Your task to perform on an android device: show emergency info Image 0: 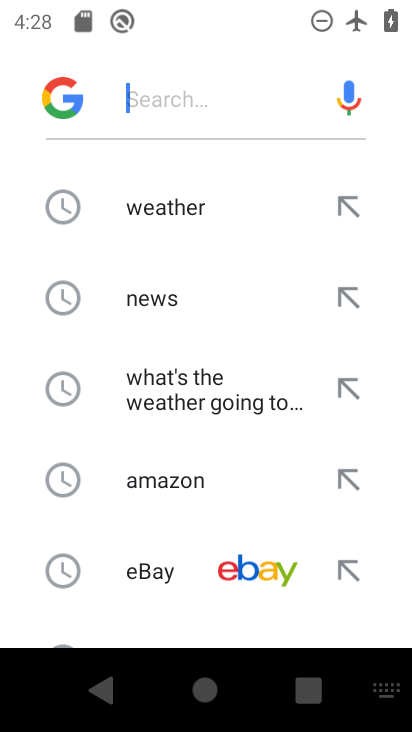
Step 0: press home button
Your task to perform on an android device: show emergency info Image 1: 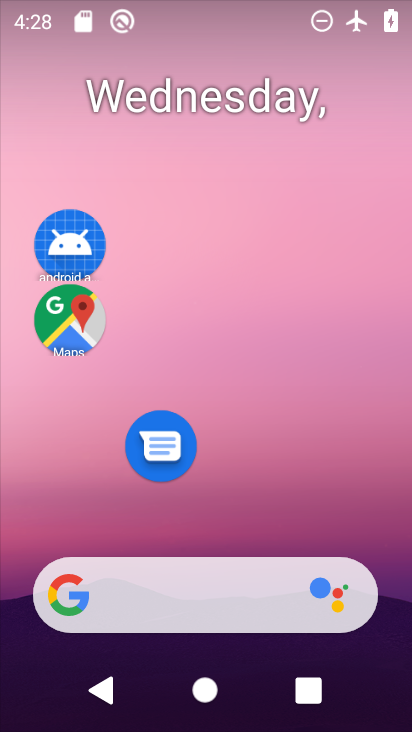
Step 1: drag from (295, 531) to (295, 150)
Your task to perform on an android device: show emergency info Image 2: 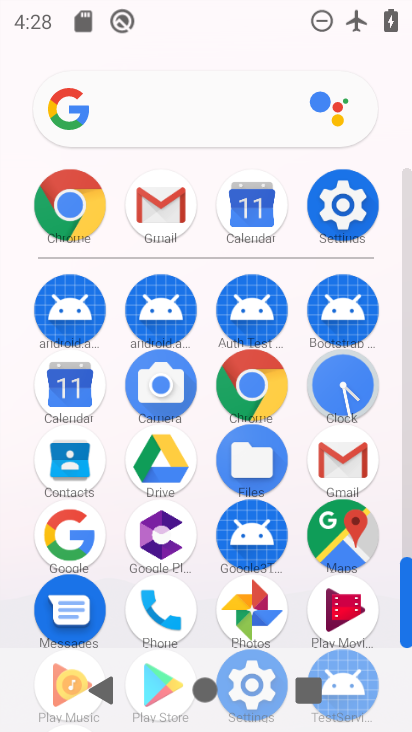
Step 2: click (344, 215)
Your task to perform on an android device: show emergency info Image 3: 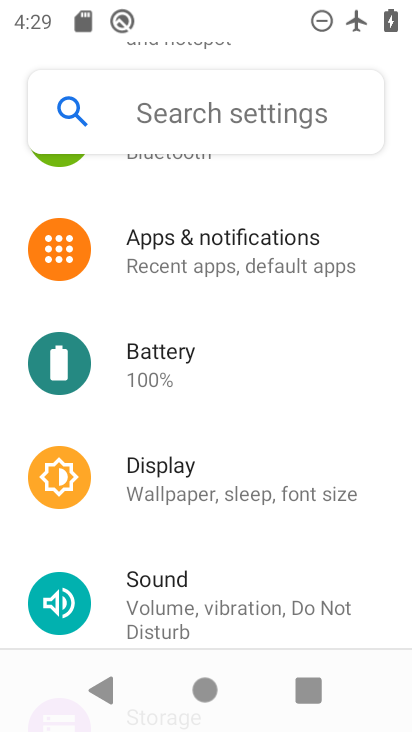
Step 3: drag from (246, 480) to (252, 214)
Your task to perform on an android device: show emergency info Image 4: 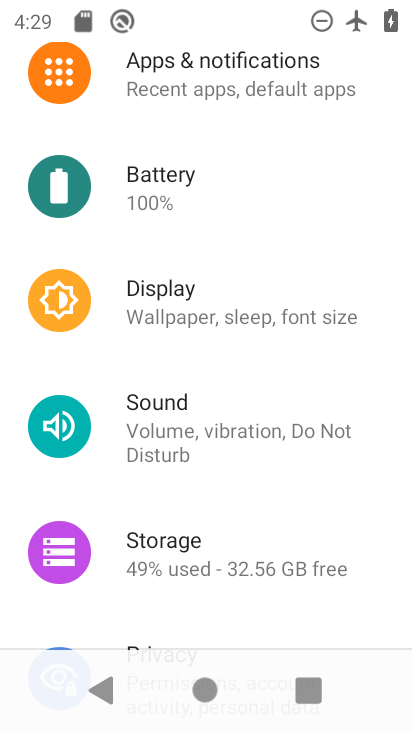
Step 4: drag from (243, 567) to (235, 285)
Your task to perform on an android device: show emergency info Image 5: 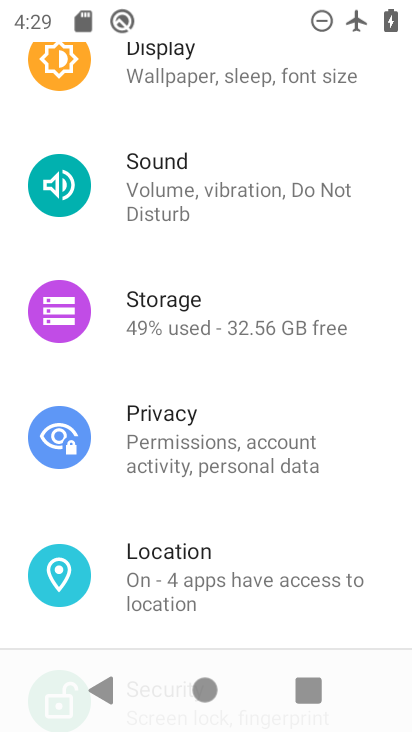
Step 5: drag from (225, 552) to (237, 277)
Your task to perform on an android device: show emergency info Image 6: 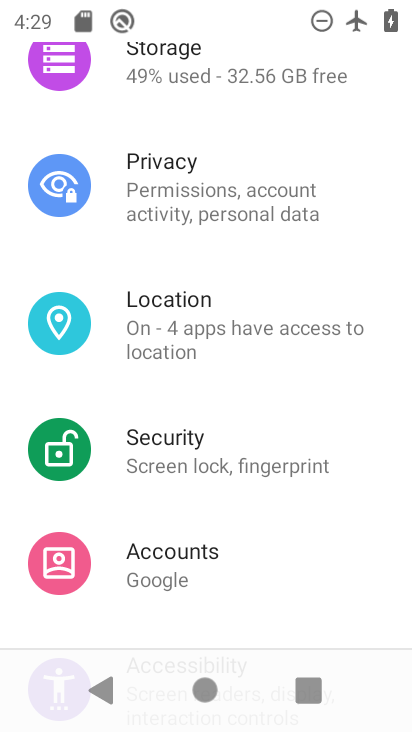
Step 6: drag from (237, 548) to (235, 251)
Your task to perform on an android device: show emergency info Image 7: 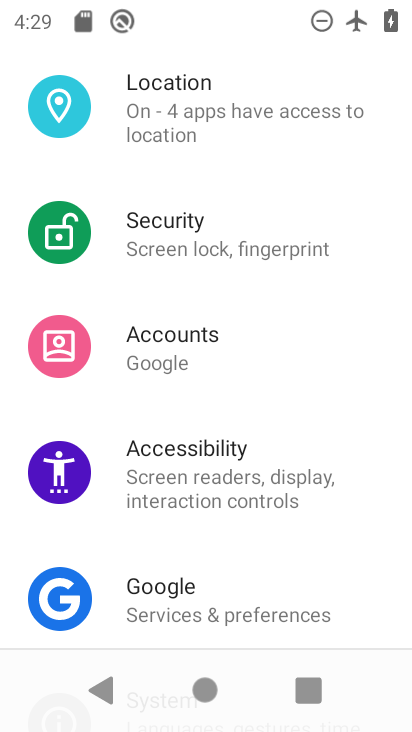
Step 7: drag from (235, 465) to (272, 114)
Your task to perform on an android device: show emergency info Image 8: 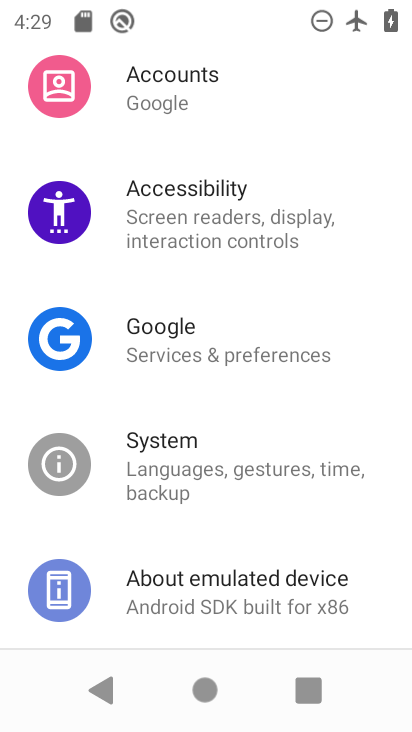
Step 8: click (204, 578)
Your task to perform on an android device: show emergency info Image 9: 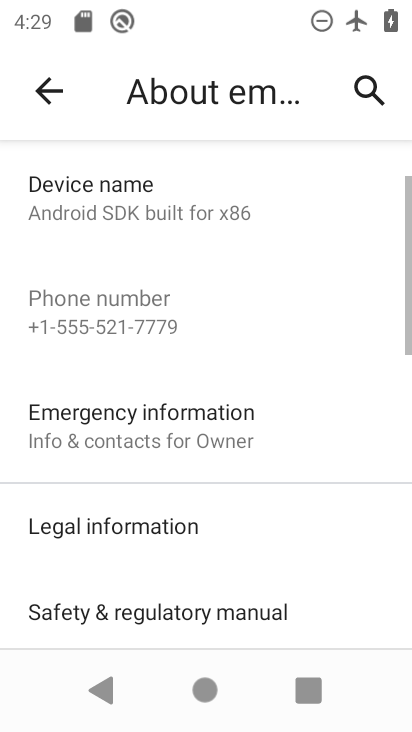
Step 9: click (229, 393)
Your task to perform on an android device: show emergency info Image 10: 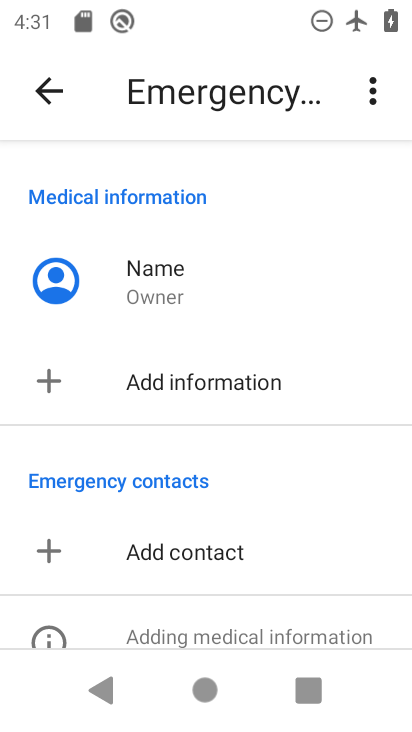
Step 10: task complete